Your task to perform on an android device: turn pop-ups on in chrome Image 0: 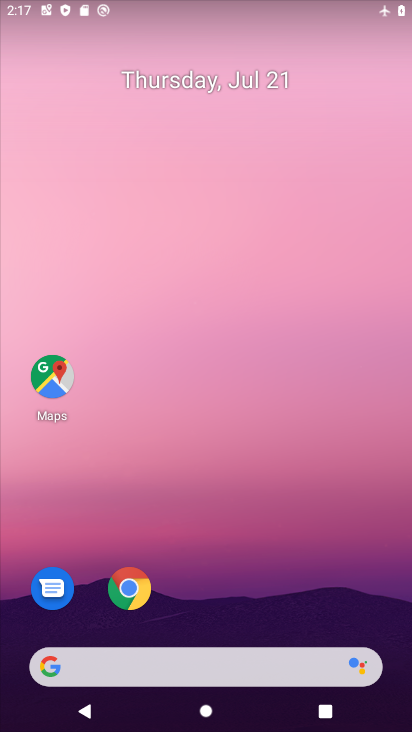
Step 0: drag from (194, 610) to (260, 172)
Your task to perform on an android device: turn pop-ups on in chrome Image 1: 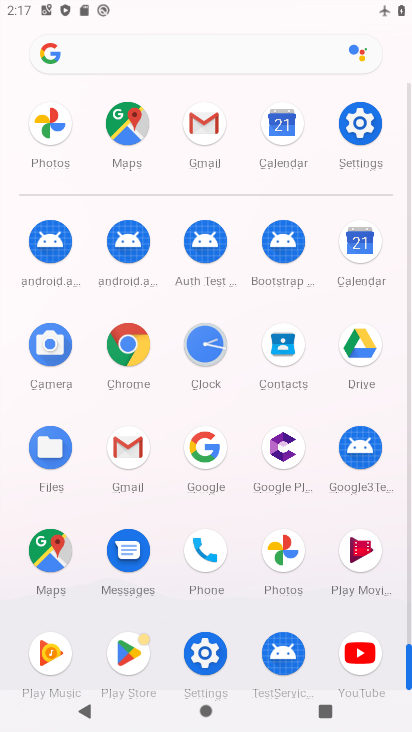
Step 1: drag from (235, 512) to (220, 248)
Your task to perform on an android device: turn pop-ups on in chrome Image 2: 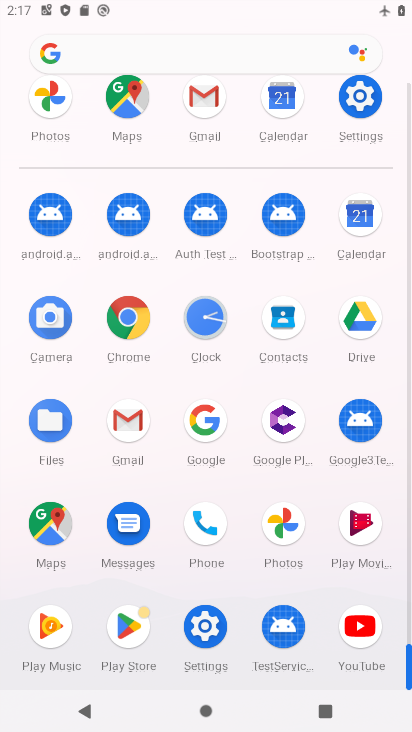
Step 2: click (122, 324)
Your task to perform on an android device: turn pop-ups on in chrome Image 3: 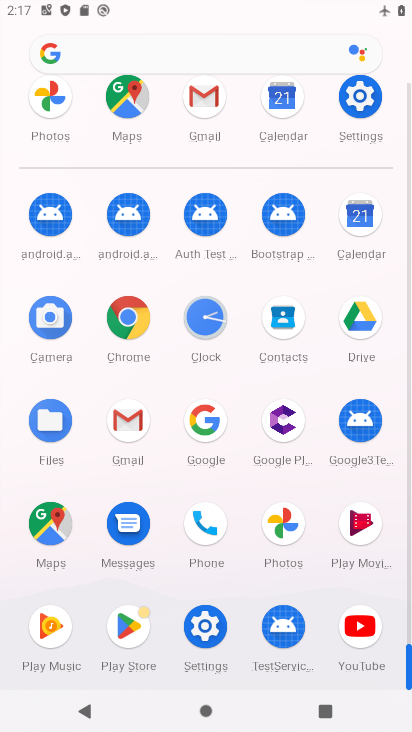
Step 3: click (122, 324)
Your task to perform on an android device: turn pop-ups on in chrome Image 4: 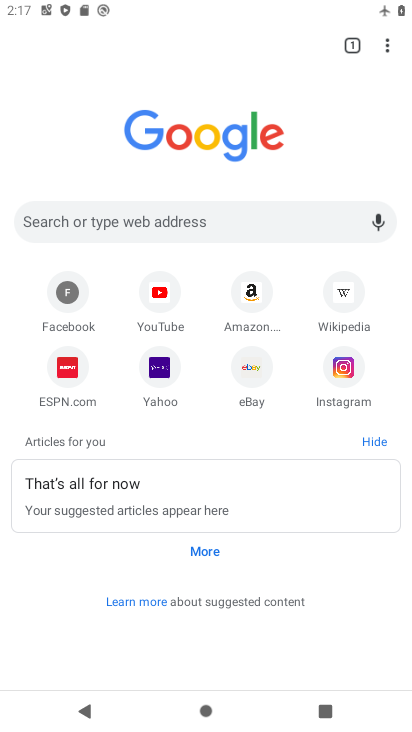
Step 4: drag from (191, 428) to (201, 92)
Your task to perform on an android device: turn pop-ups on in chrome Image 5: 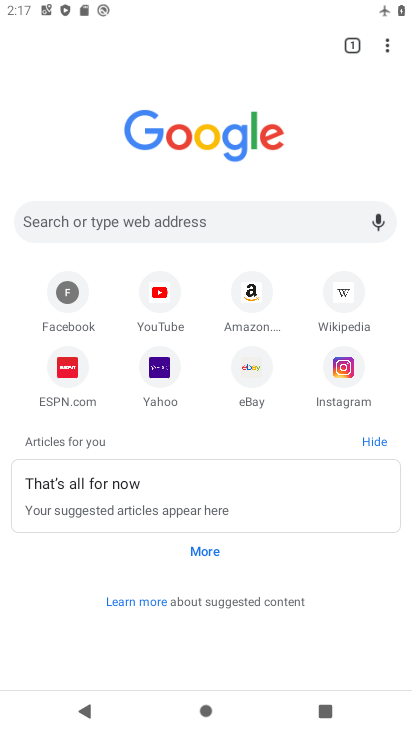
Step 5: drag from (219, 175) to (260, 577)
Your task to perform on an android device: turn pop-ups on in chrome Image 6: 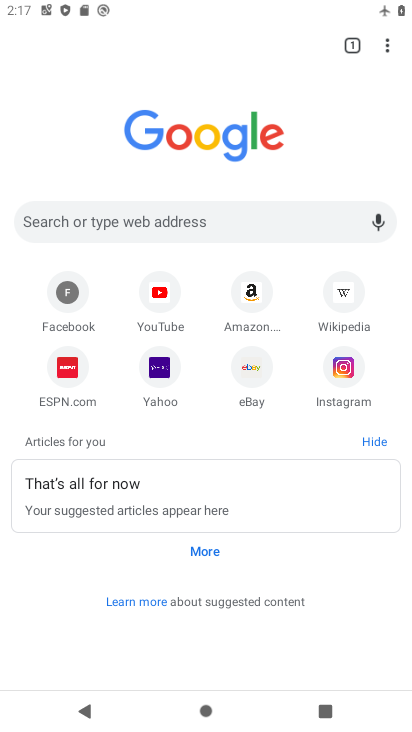
Step 6: drag from (387, 42) to (280, 405)
Your task to perform on an android device: turn pop-ups on in chrome Image 7: 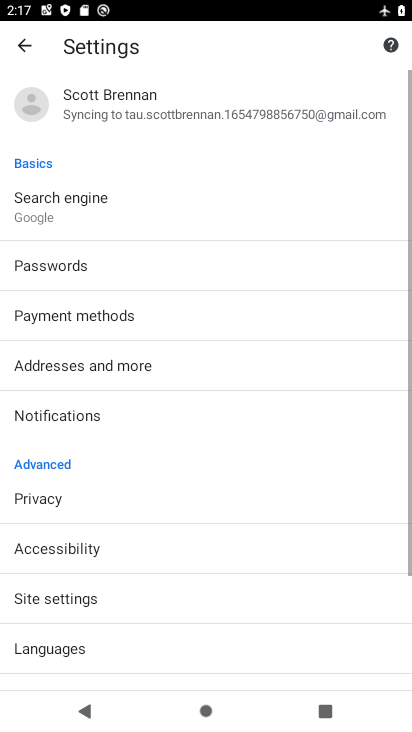
Step 7: drag from (181, 466) to (210, 176)
Your task to perform on an android device: turn pop-ups on in chrome Image 8: 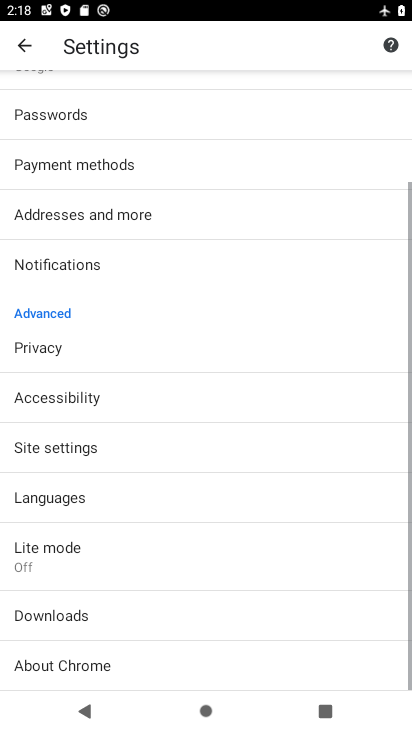
Step 8: drag from (121, 561) to (195, 175)
Your task to perform on an android device: turn pop-ups on in chrome Image 9: 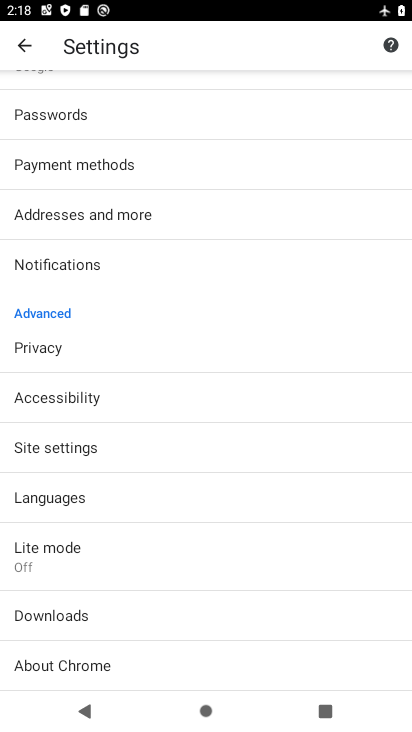
Step 9: click (61, 443)
Your task to perform on an android device: turn pop-ups on in chrome Image 10: 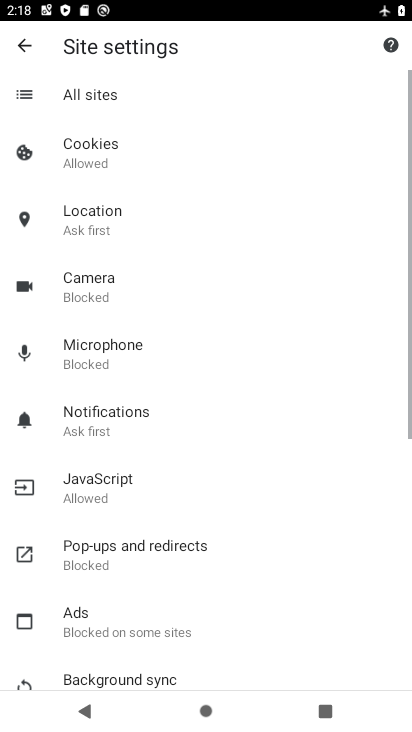
Step 10: drag from (201, 588) to (240, 304)
Your task to perform on an android device: turn pop-ups on in chrome Image 11: 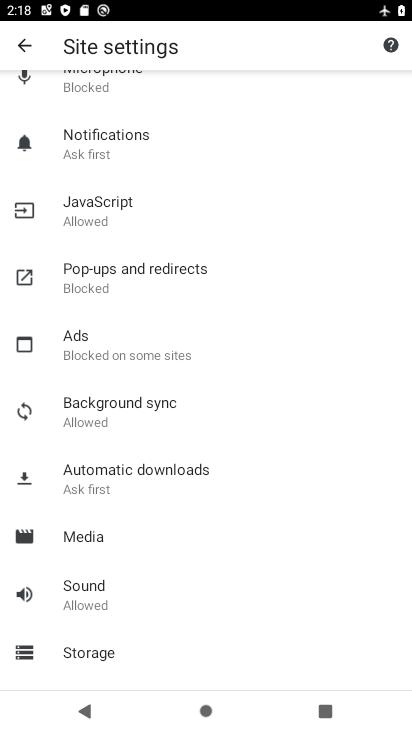
Step 11: click (124, 283)
Your task to perform on an android device: turn pop-ups on in chrome Image 12: 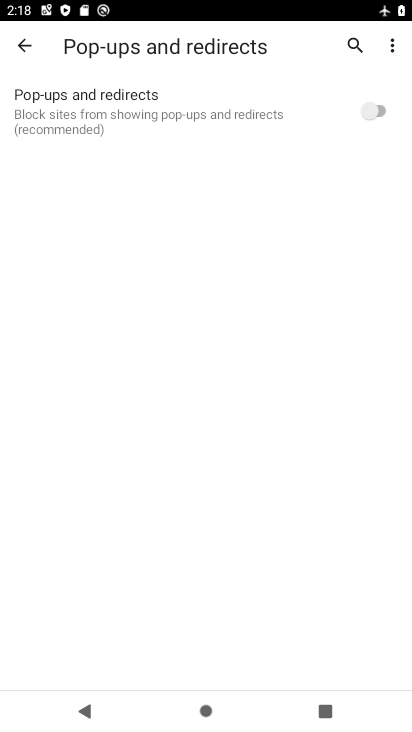
Step 12: click (302, 123)
Your task to perform on an android device: turn pop-ups on in chrome Image 13: 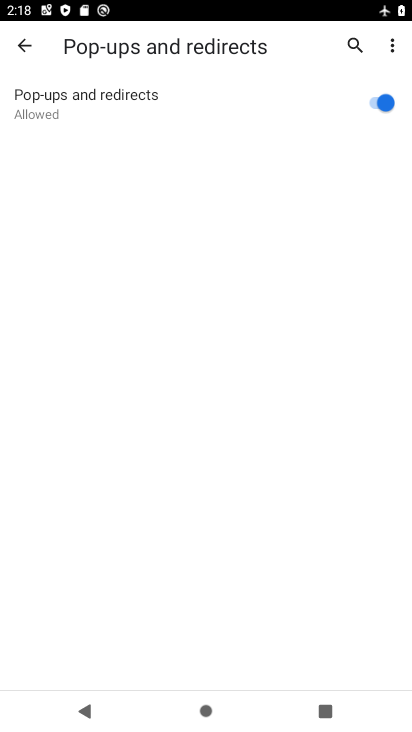
Step 13: task complete